Your task to perform on an android device: turn vacation reply on in the gmail app Image 0: 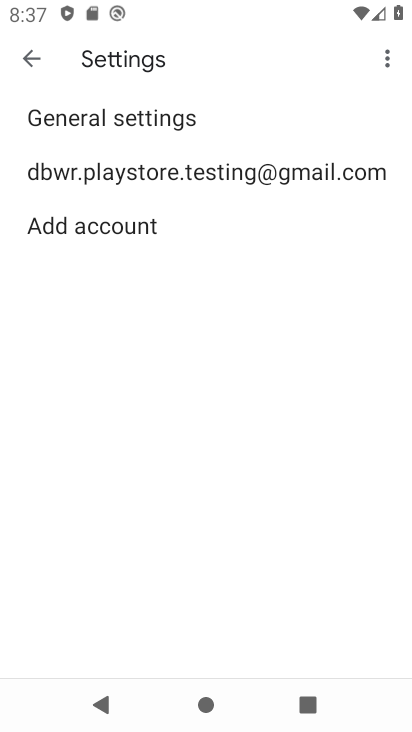
Step 0: click (190, 180)
Your task to perform on an android device: turn vacation reply on in the gmail app Image 1: 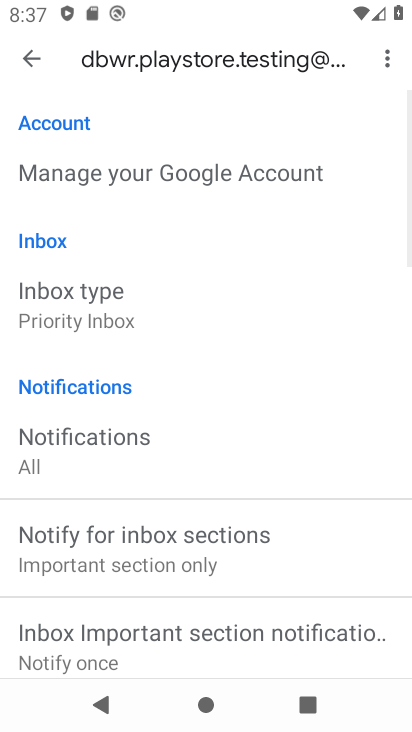
Step 1: task complete